Your task to perform on an android device: open chrome and create a bookmark for the current page Image 0: 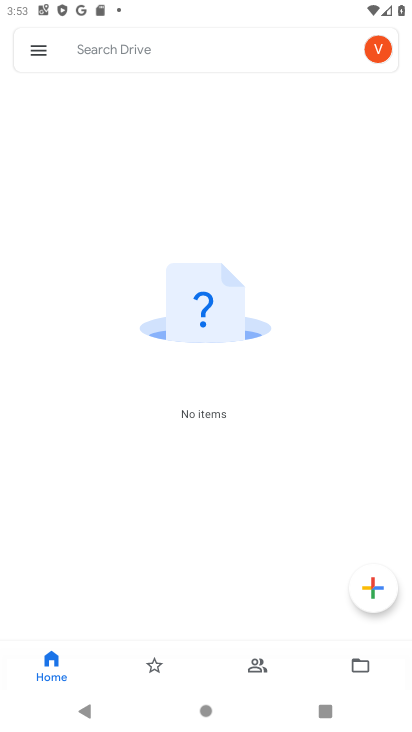
Step 0: press home button
Your task to perform on an android device: open chrome and create a bookmark for the current page Image 1: 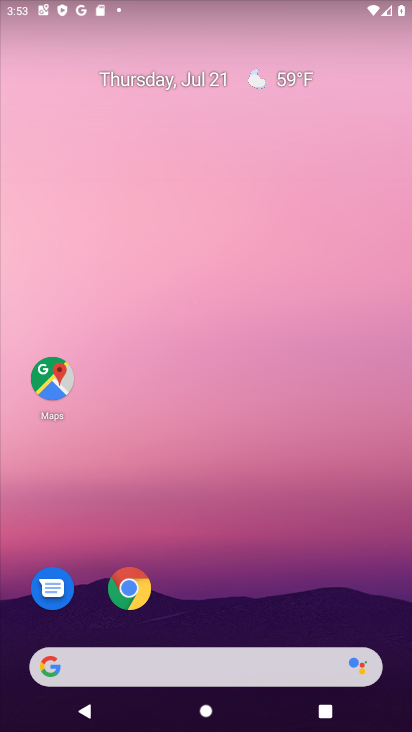
Step 1: drag from (232, 719) to (235, 221)
Your task to perform on an android device: open chrome and create a bookmark for the current page Image 2: 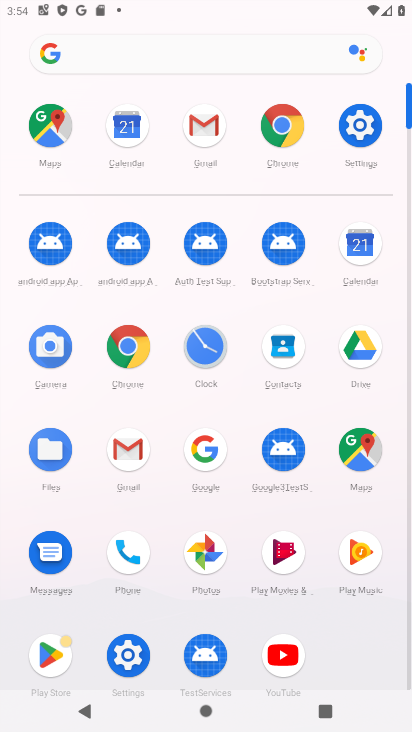
Step 2: click (129, 345)
Your task to perform on an android device: open chrome and create a bookmark for the current page Image 3: 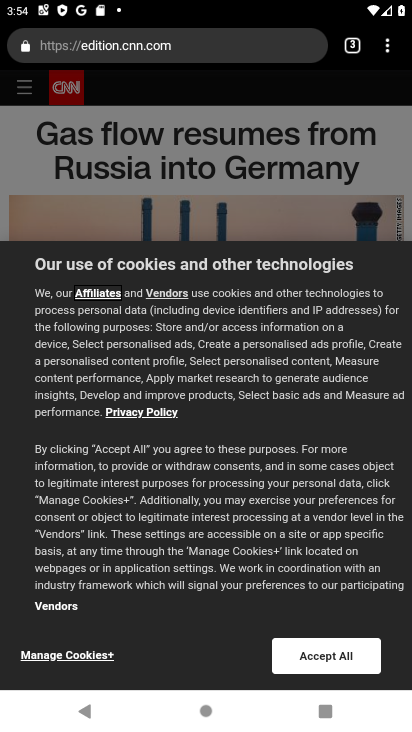
Step 3: click (387, 53)
Your task to perform on an android device: open chrome and create a bookmark for the current page Image 4: 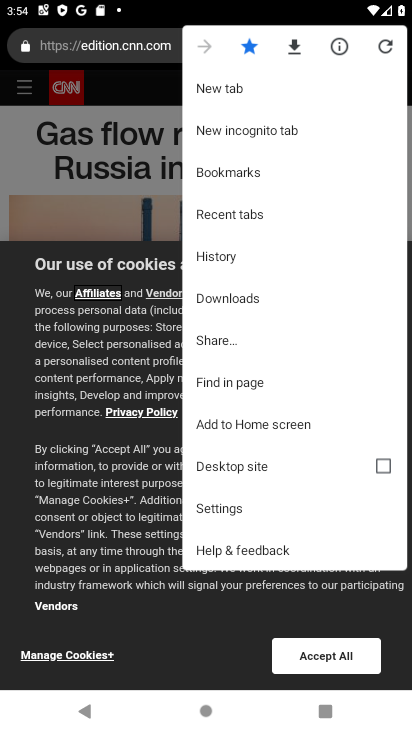
Step 4: task complete